Your task to perform on an android device: check storage Image 0: 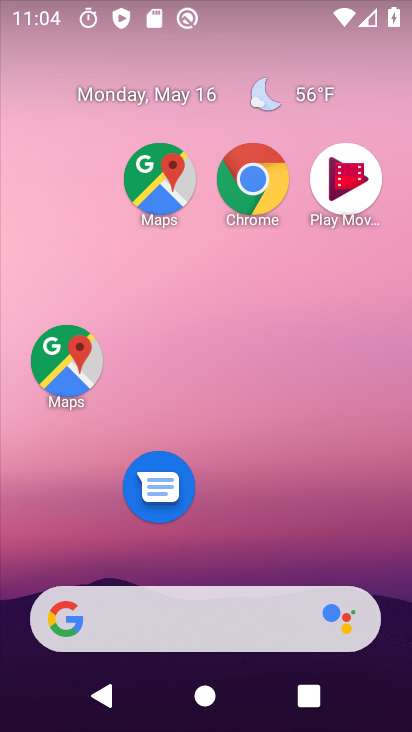
Step 0: drag from (310, 552) to (189, 220)
Your task to perform on an android device: check storage Image 1: 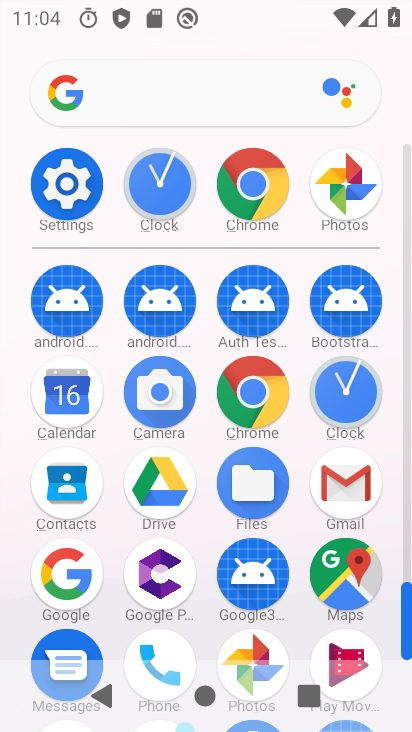
Step 1: click (72, 187)
Your task to perform on an android device: check storage Image 2: 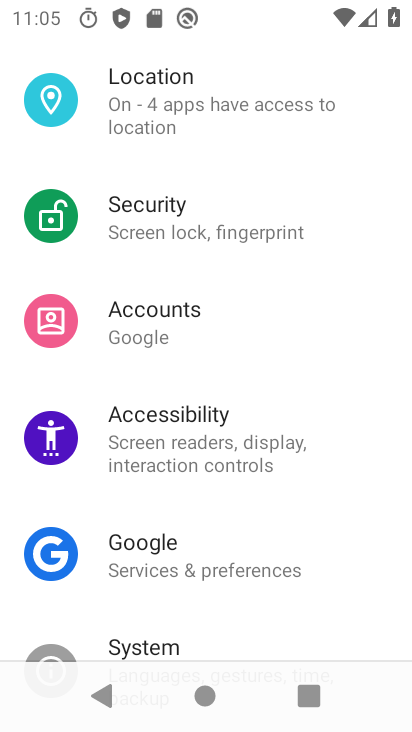
Step 2: drag from (194, 174) to (183, 496)
Your task to perform on an android device: check storage Image 3: 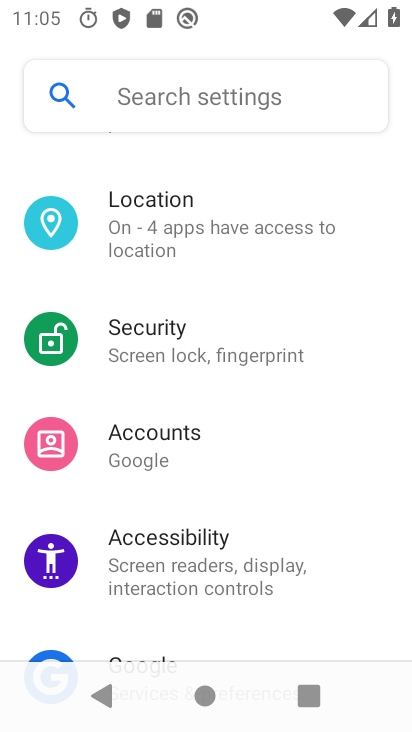
Step 3: drag from (132, 606) to (168, 230)
Your task to perform on an android device: check storage Image 4: 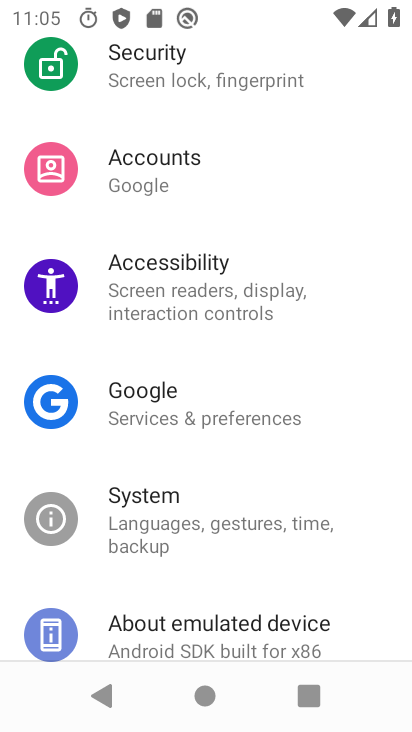
Step 4: drag from (217, 193) to (192, 535)
Your task to perform on an android device: check storage Image 5: 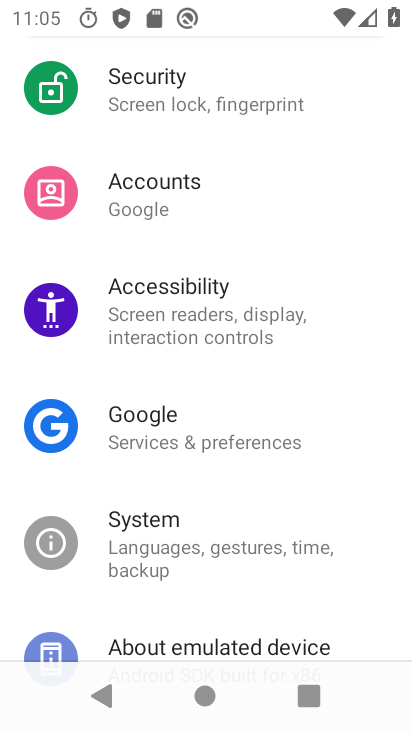
Step 5: drag from (227, 144) to (156, 526)
Your task to perform on an android device: check storage Image 6: 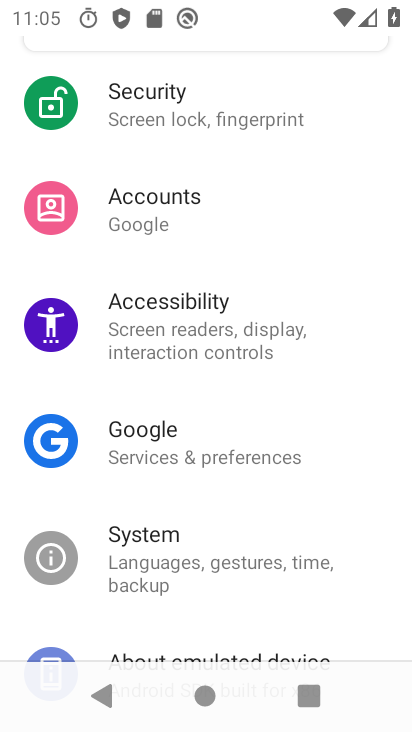
Step 6: drag from (198, 143) to (169, 483)
Your task to perform on an android device: check storage Image 7: 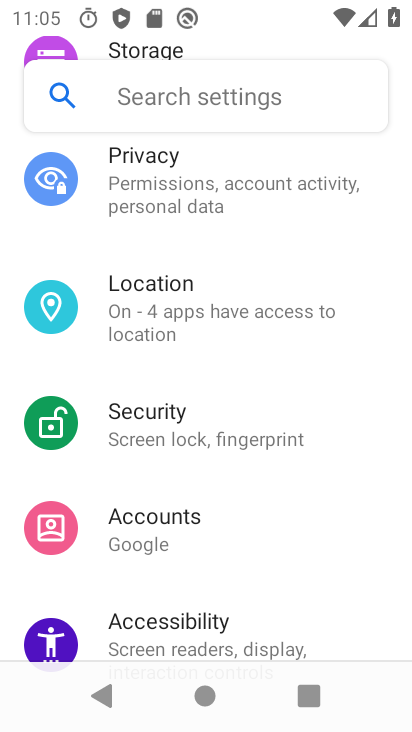
Step 7: drag from (202, 264) to (167, 675)
Your task to perform on an android device: check storage Image 8: 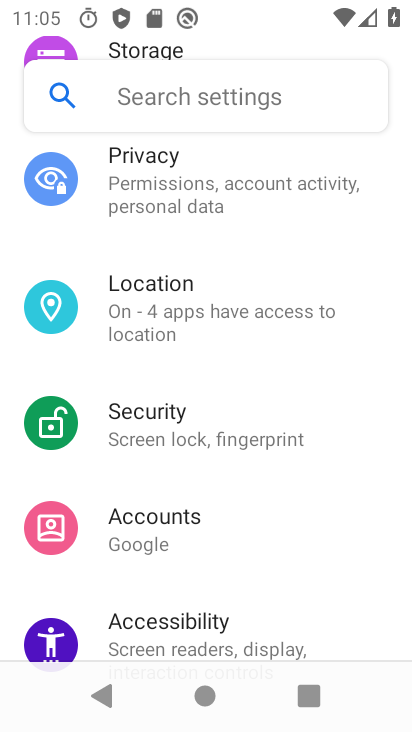
Step 8: drag from (175, 240) to (144, 444)
Your task to perform on an android device: check storage Image 9: 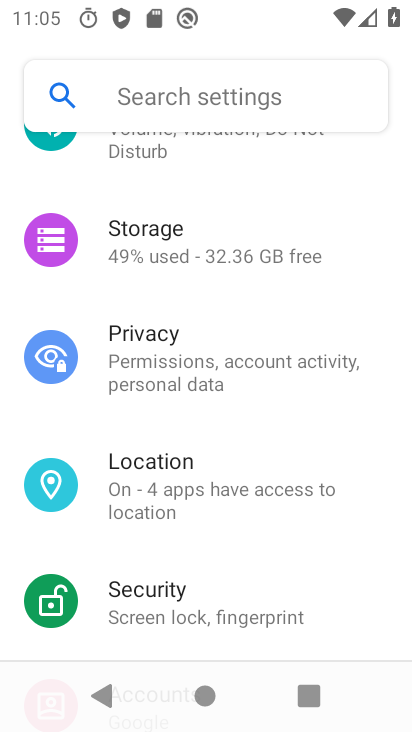
Step 9: click (144, 233)
Your task to perform on an android device: check storage Image 10: 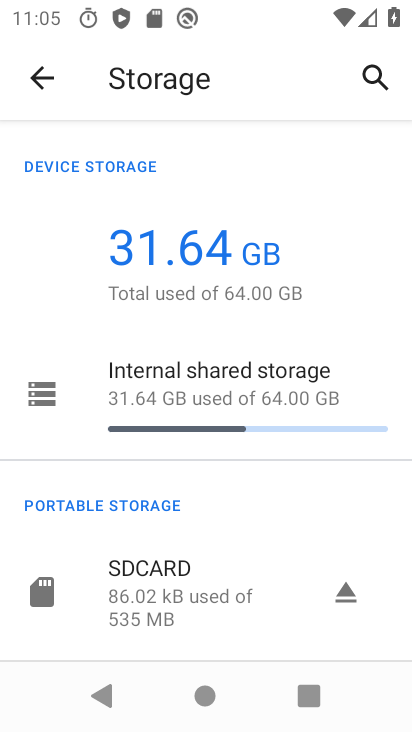
Step 10: task complete